Your task to perform on an android device: Go to ESPN.com Image 0: 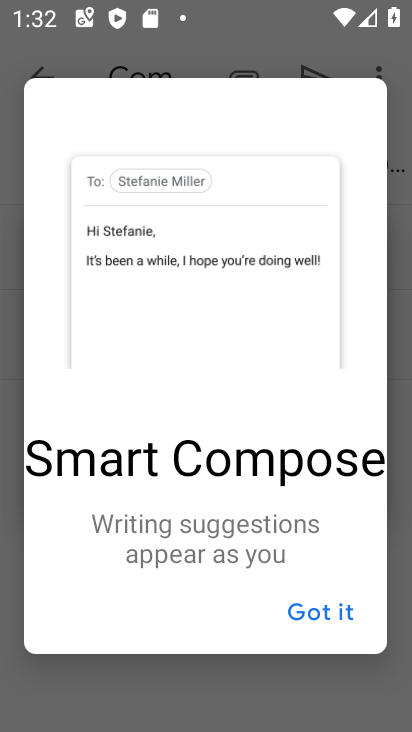
Step 0: press home button
Your task to perform on an android device: Go to ESPN.com Image 1: 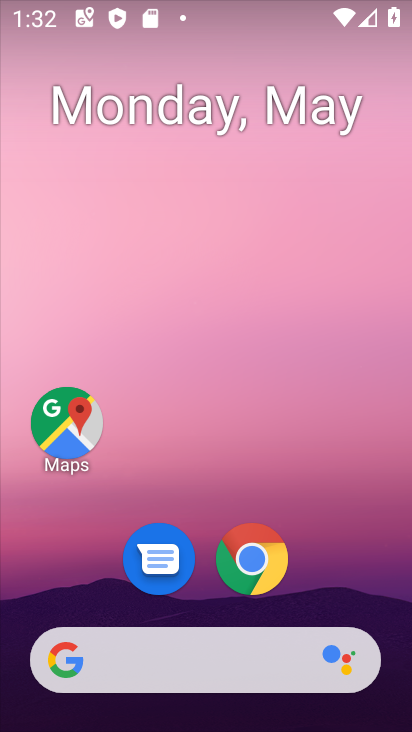
Step 1: click (191, 652)
Your task to perform on an android device: Go to ESPN.com Image 2: 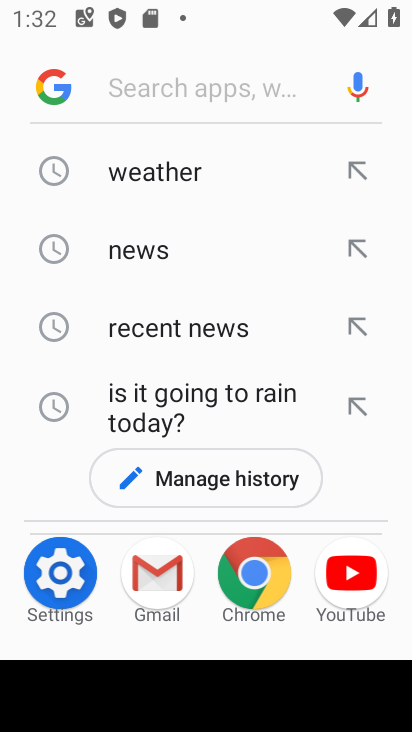
Step 2: type "espn.com"
Your task to perform on an android device: Go to ESPN.com Image 3: 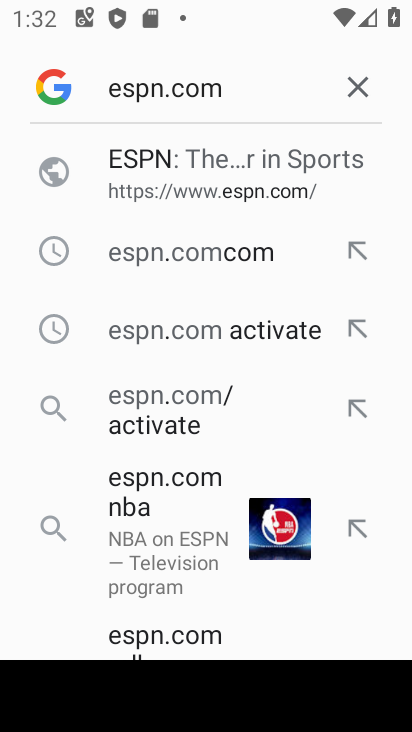
Step 3: click (178, 187)
Your task to perform on an android device: Go to ESPN.com Image 4: 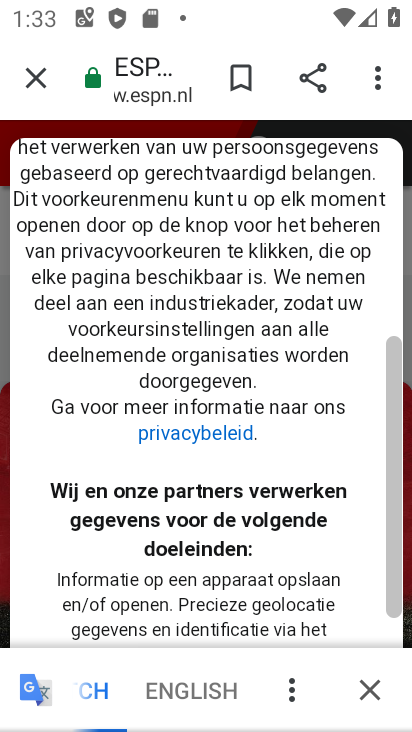
Step 4: task complete